Your task to perform on an android device: Go to internet settings Image 0: 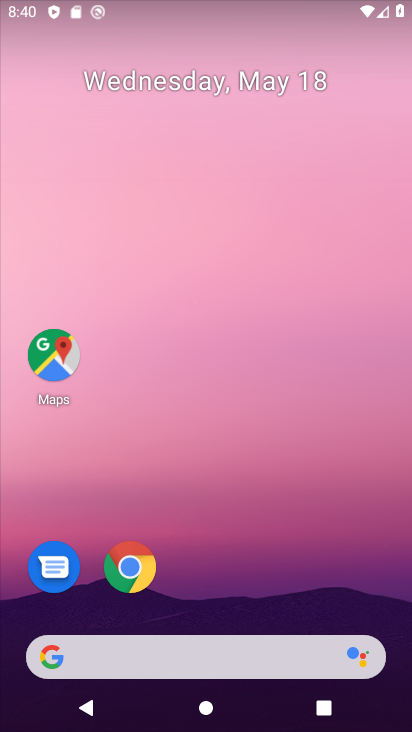
Step 0: drag from (247, 589) to (226, 15)
Your task to perform on an android device: Go to internet settings Image 1: 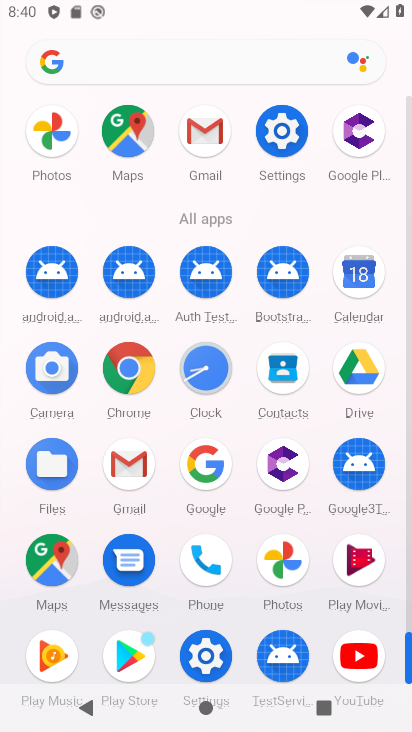
Step 1: click (280, 131)
Your task to perform on an android device: Go to internet settings Image 2: 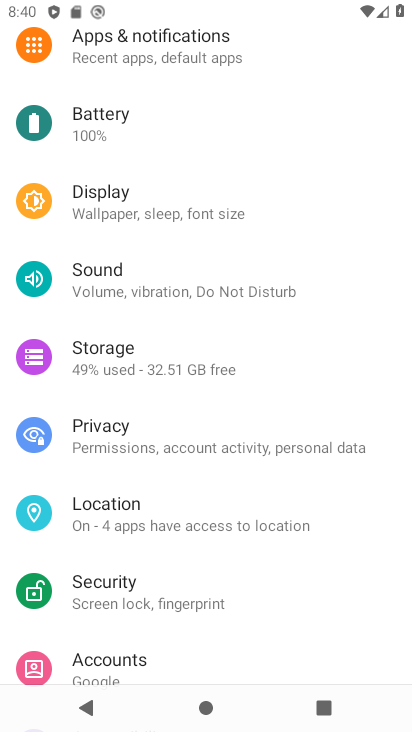
Step 2: drag from (209, 209) to (190, 307)
Your task to perform on an android device: Go to internet settings Image 3: 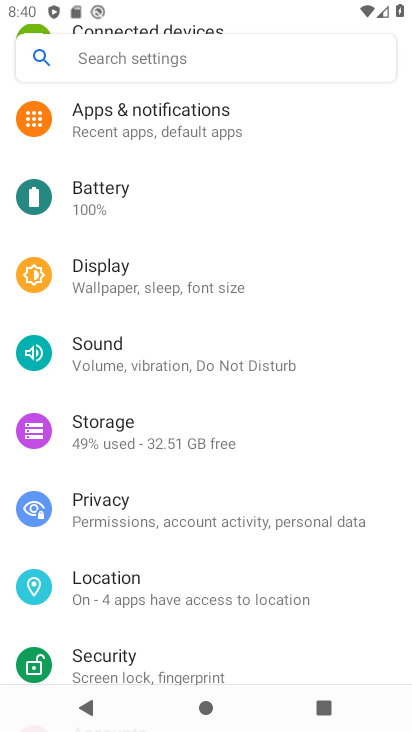
Step 3: drag from (167, 250) to (151, 371)
Your task to perform on an android device: Go to internet settings Image 4: 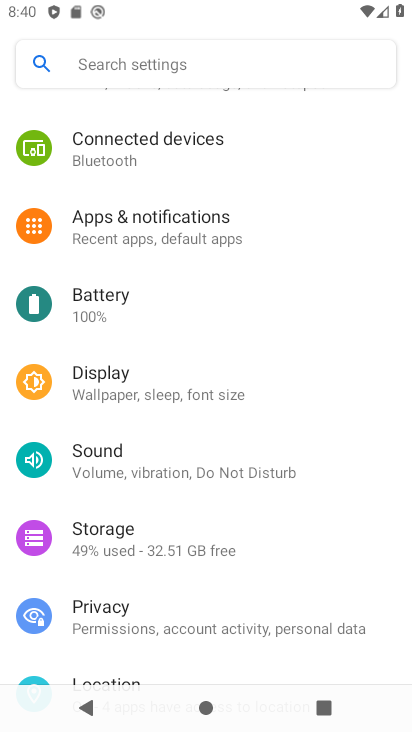
Step 4: drag from (149, 176) to (151, 351)
Your task to perform on an android device: Go to internet settings Image 5: 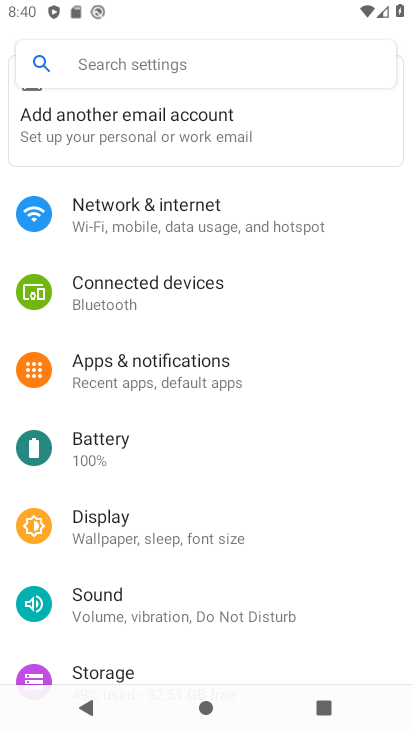
Step 5: click (160, 223)
Your task to perform on an android device: Go to internet settings Image 6: 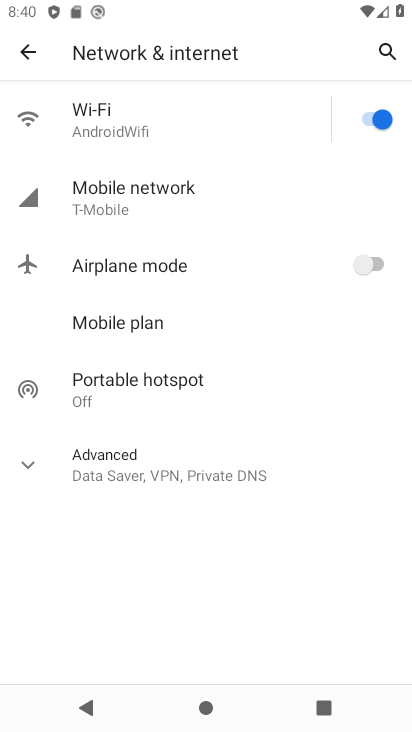
Step 6: task complete